Your task to perform on an android device: open a new tab in the chrome app Image 0: 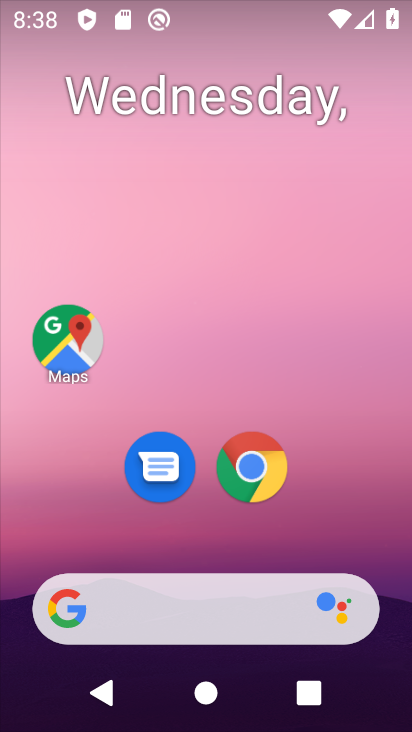
Step 0: click (263, 467)
Your task to perform on an android device: open a new tab in the chrome app Image 1: 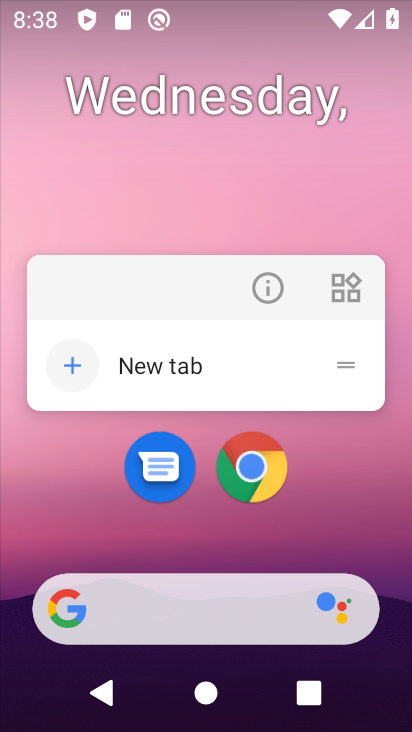
Step 1: drag from (346, 502) to (328, 27)
Your task to perform on an android device: open a new tab in the chrome app Image 2: 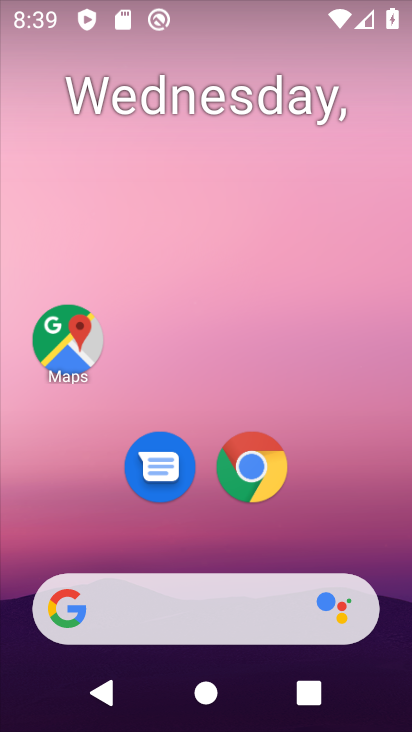
Step 2: drag from (351, 257) to (352, 50)
Your task to perform on an android device: open a new tab in the chrome app Image 3: 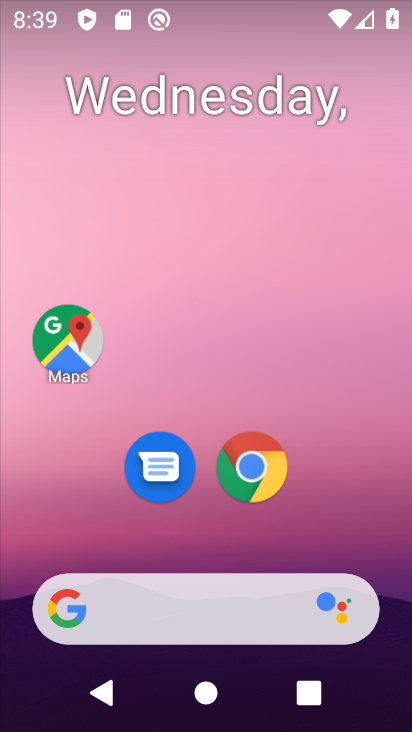
Step 3: drag from (341, 501) to (278, 36)
Your task to perform on an android device: open a new tab in the chrome app Image 4: 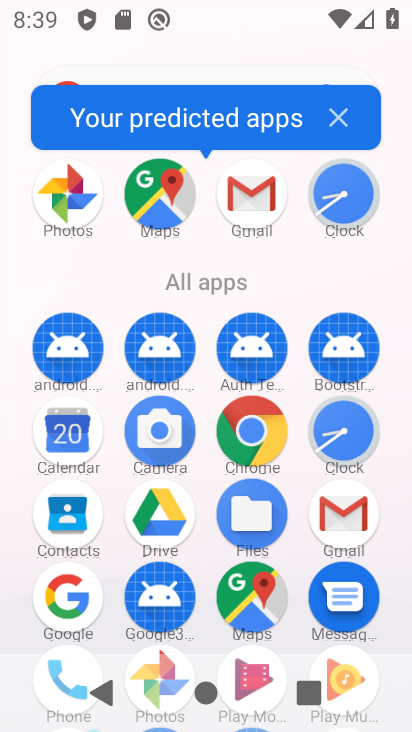
Step 4: click (252, 454)
Your task to perform on an android device: open a new tab in the chrome app Image 5: 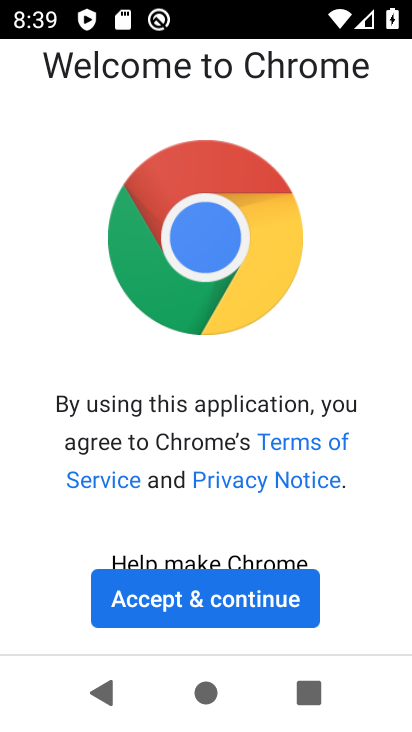
Step 5: click (232, 607)
Your task to perform on an android device: open a new tab in the chrome app Image 6: 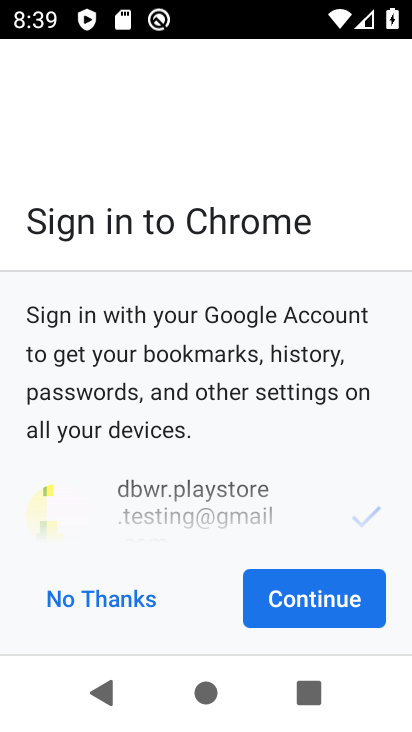
Step 6: click (368, 610)
Your task to perform on an android device: open a new tab in the chrome app Image 7: 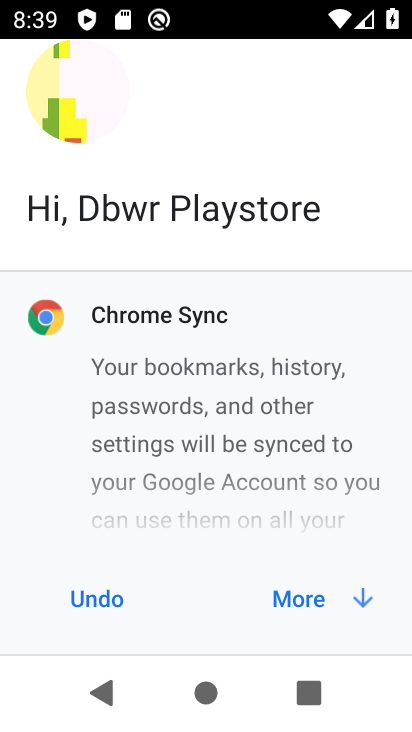
Step 7: click (344, 612)
Your task to perform on an android device: open a new tab in the chrome app Image 8: 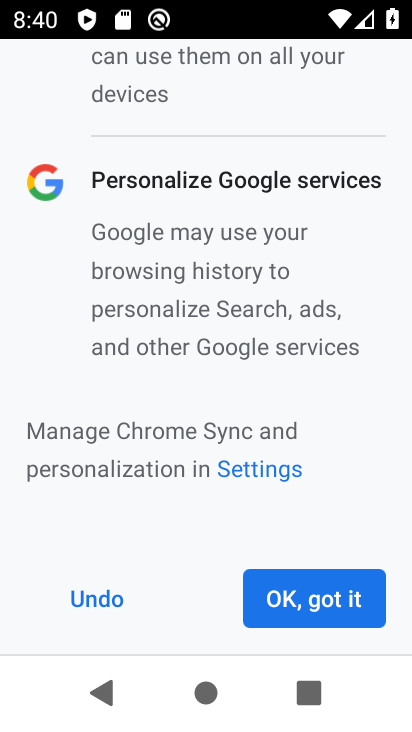
Step 8: click (344, 612)
Your task to perform on an android device: open a new tab in the chrome app Image 9: 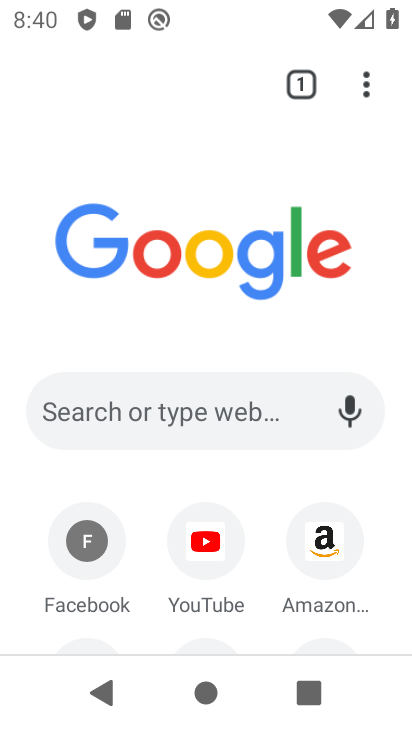
Step 9: task complete